Your task to perform on an android device: Clear the cart on walmart. Search for bose soundlink mini on walmart, select the first entry, and add it to the cart. Image 0: 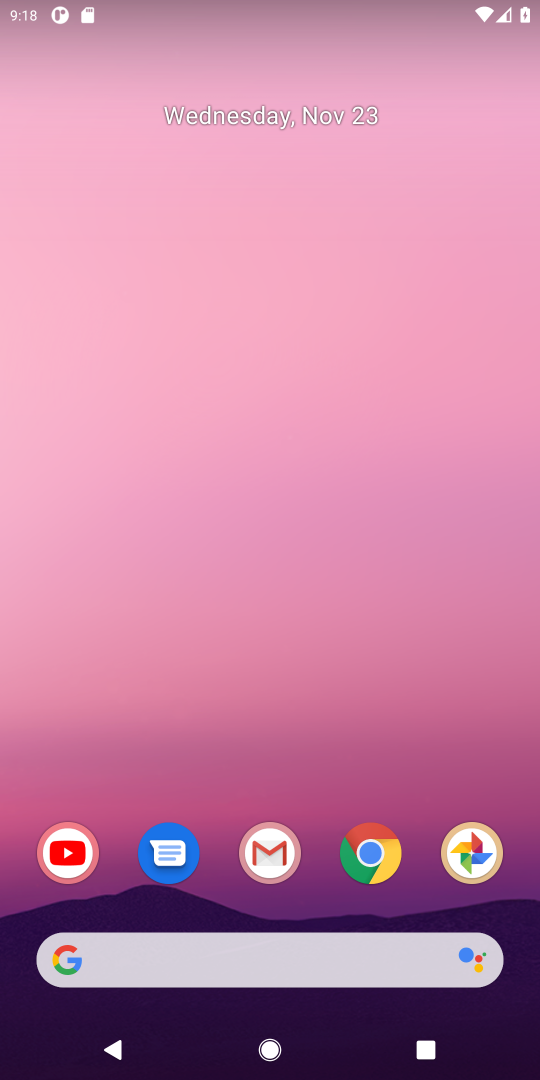
Step 0: click (378, 852)
Your task to perform on an android device: Clear the cart on walmart. Search for bose soundlink mini on walmart, select the first entry, and add it to the cart. Image 1: 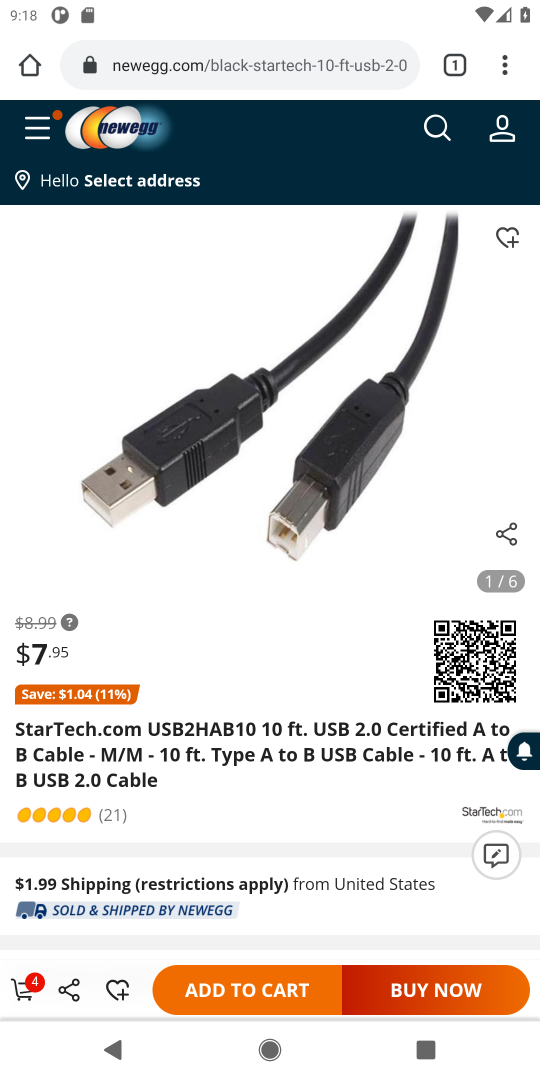
Step 1: click (214, 78)
Your task to perform on an android device: Clear the cart on walmart. Search for bose soundlink mini on walmart, select the first entry, and add it to the cart. Image 2: 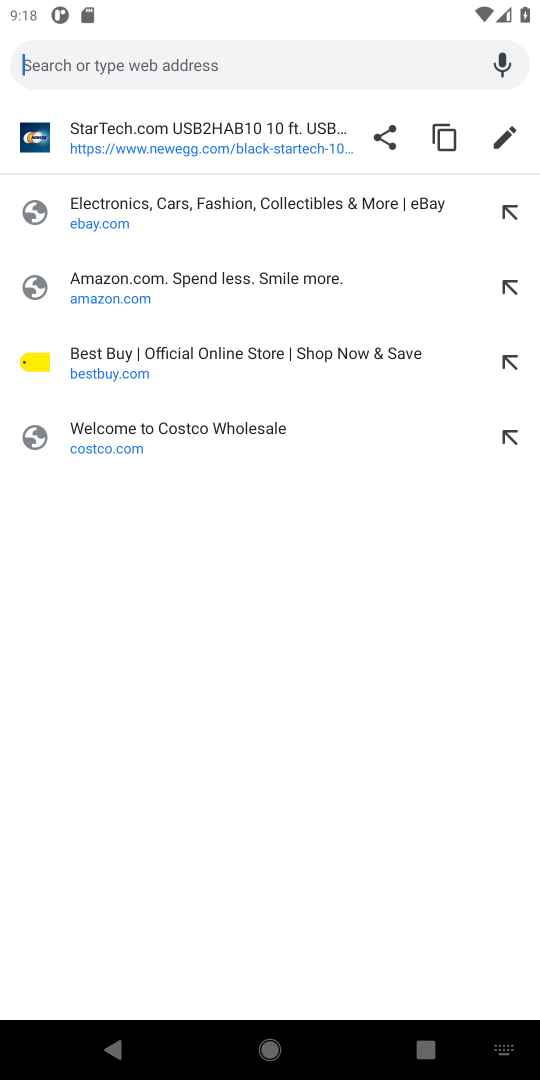
Step 2: type "walmart.com"
Your task to perform on an android device: Clear the cart on walmart. Search for bose soundlink mini on walmart, select the first entry, and add it to the cart. Image 3: 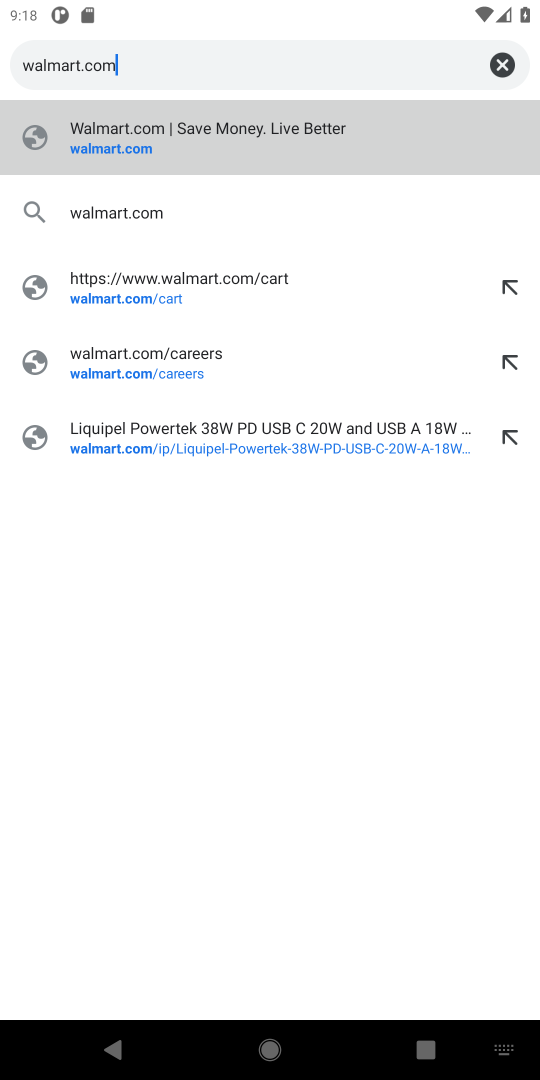
Step 3: click (116, 139)
Your task to perform on an android device: Clear the cart on walmart. Search for bose soundlink mini on walmart, select the first entry, and add it to the cart. Image 4: 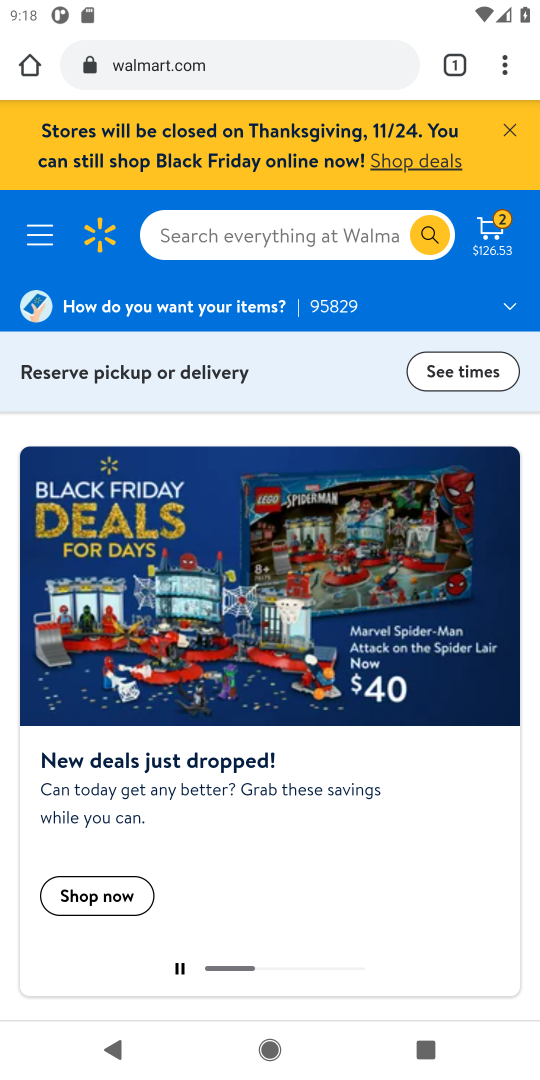
Step 4: click (494, 235)
Your task to perform on an android device: Clear the cart on walmart. Search for bose soundlink mini on walmart, select the first entry, and add it to the cart. Image 5: 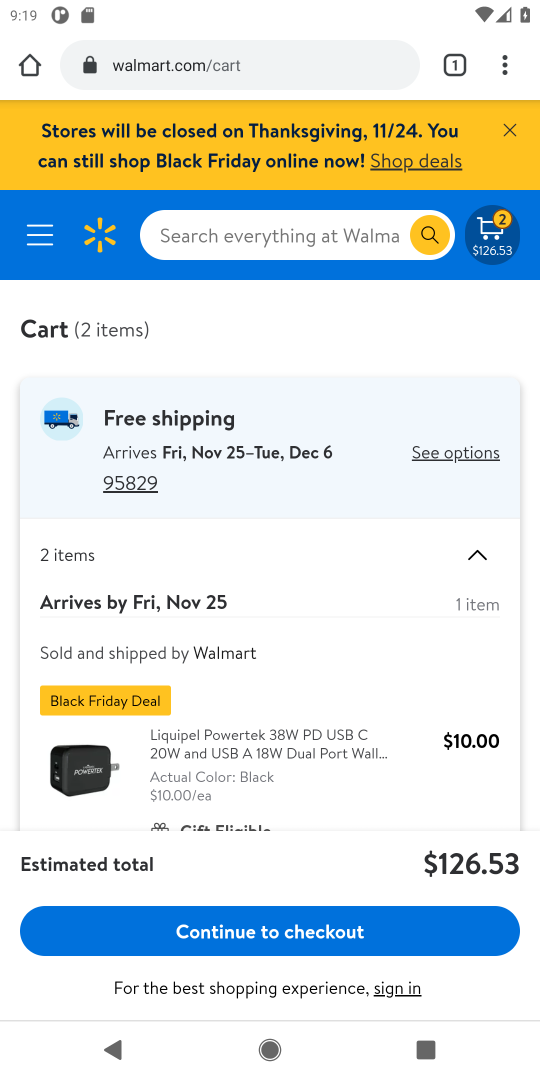
Step 5: drag from (251, 693) to (263, 474)
Your task to perform on an android device: Clear the cart on walmart. Search for bose soundlink mini on walmart, select the first entry, and add it to the cart. Image 6: 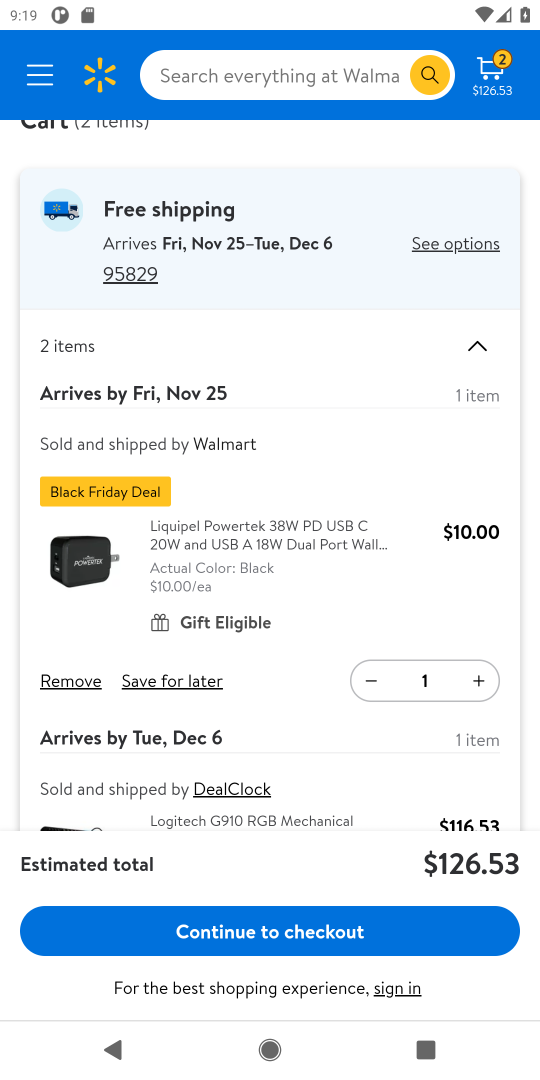
Step 6: click (66, 685)
Your task to perform on an android device: Clear the cart on walmart. Search for bose soundlink mini on walmart, select the first entry, and add it to the cart. Image 7: 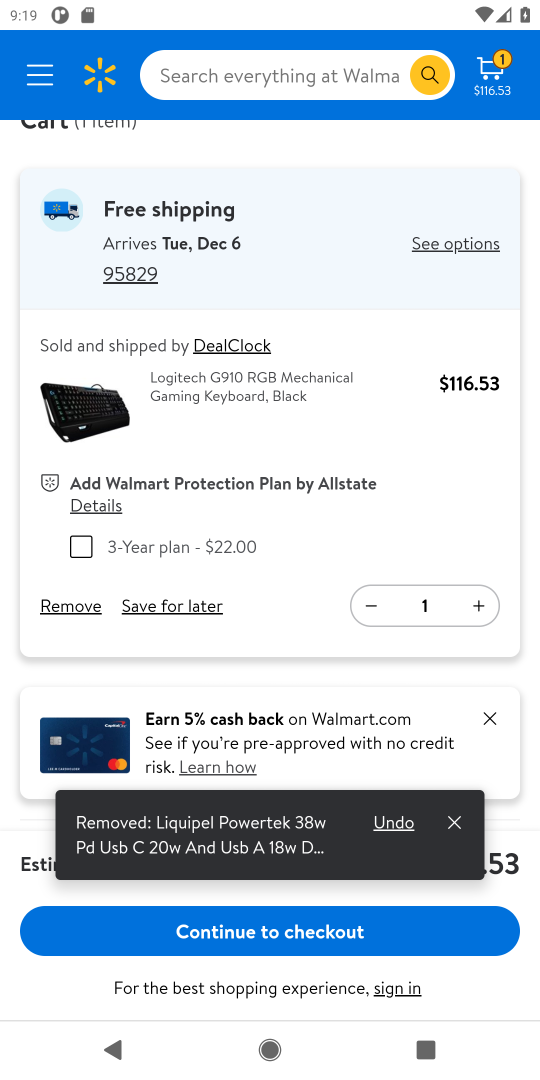
Step 7: click (75, 613)
Your task to perform on an android device: Clear the cart on walmart. Search for bose soundlink mini on walmart, select the first entry, and add it to the cart. Image 8: 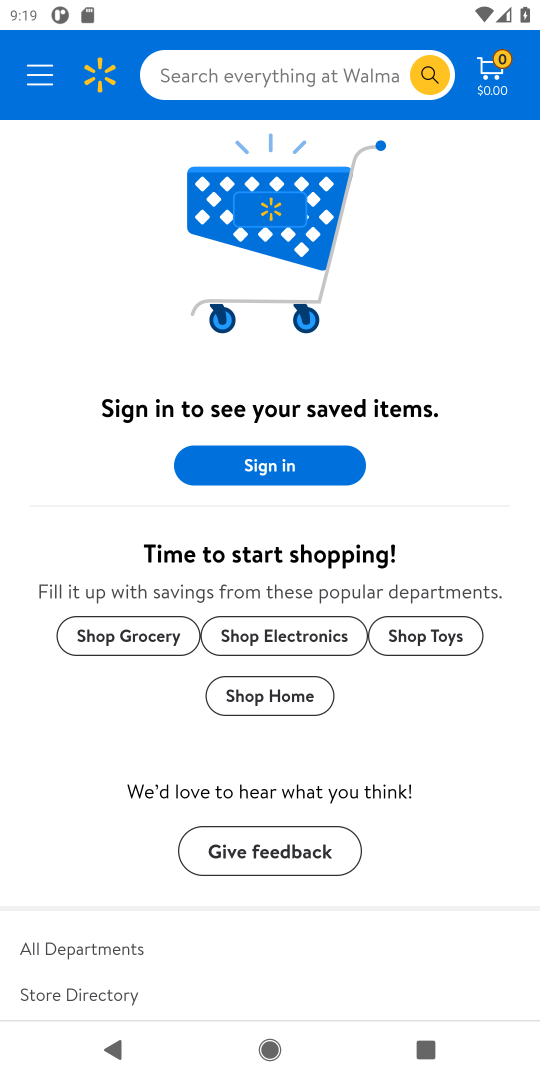
Step 8: drag from (414, 398) to (416, 526)
Your task to perform on an android device: Clear the cart on walmart. Search for bose soundlink mini on walmart, select the first entry, and add it to the cart. Image 9: 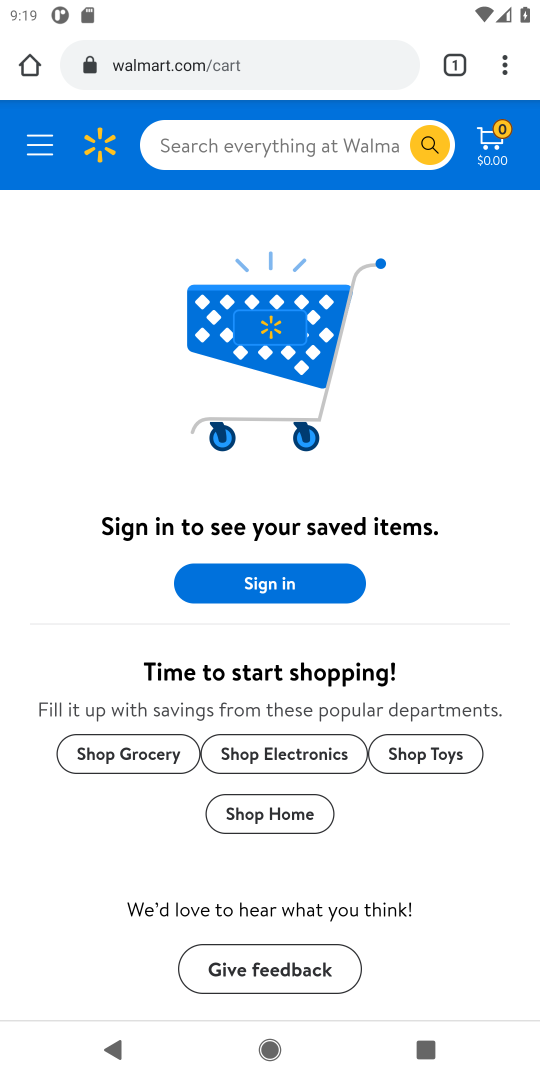
Step 9: click (217, 154)
Your task to perform on an android device: Clear the cart on walmart. Search for bose soundlink mini on walmart, select the first entry, and add it to the cart. Image 10: 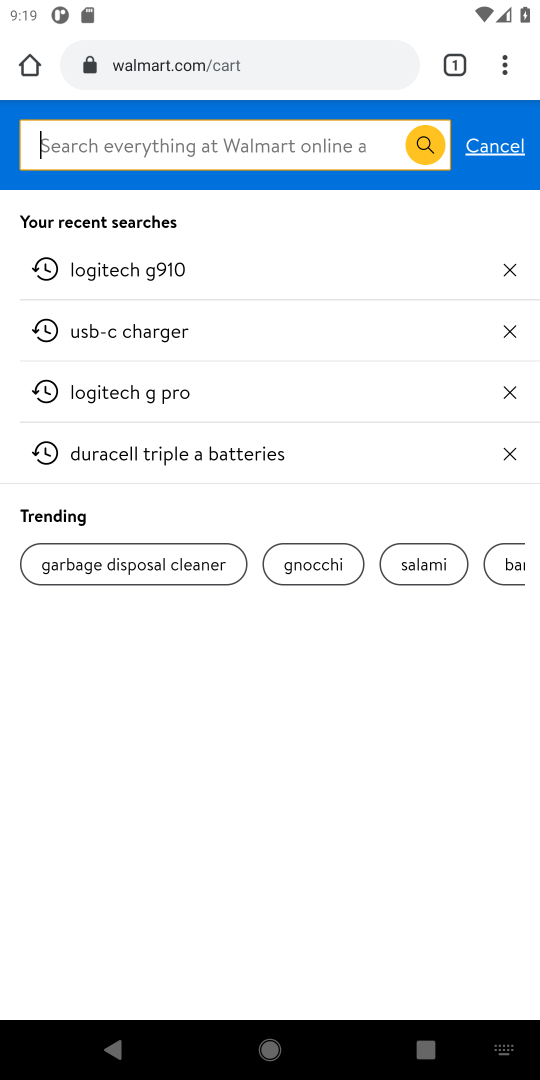
Step 10: type "bose soundlink mini"
Your task to perform on an android device: Clear the cart on walmart. Search for bose soundlink mini on walmart, select the first entry, and add it to the cart. Image 11: 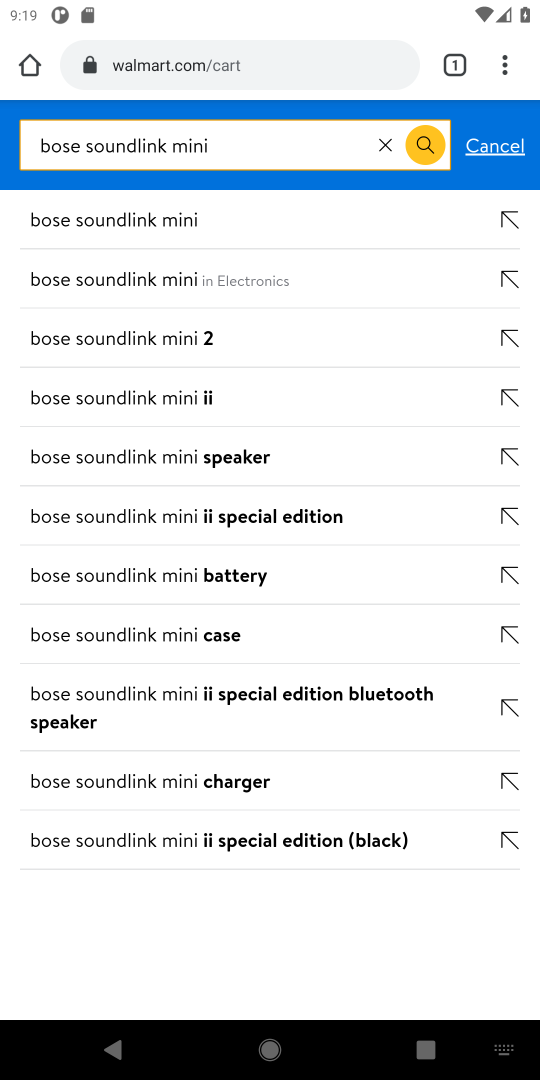
Step 11: click (104, 222)
Your task to perform on an android device: Clear the cart on walmart. Search for bose soundlink mini on walmart, select the first entry, and add it to the cart. Image 12: 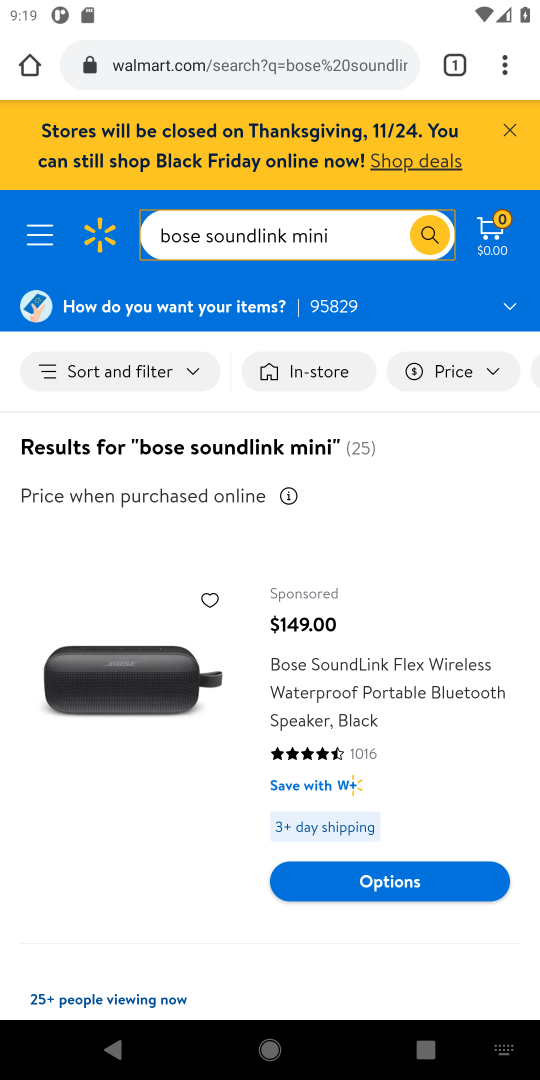
Step 12: task complete